Your task to perform on an android device: turn notification dots off Image 0: 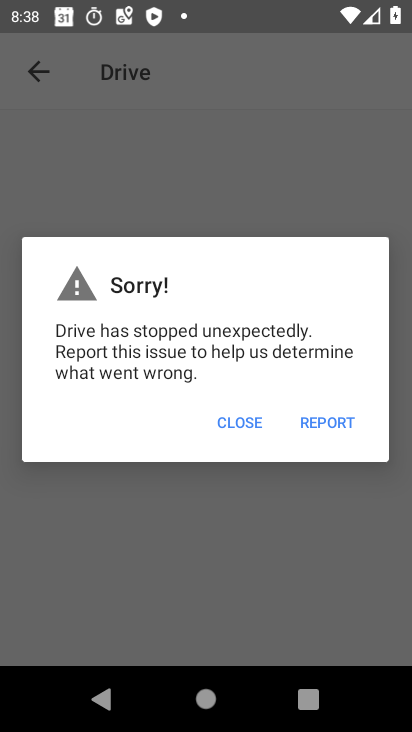
Step 0: press home button
Your task to perform on an android device: turn notification dots off Image 1: 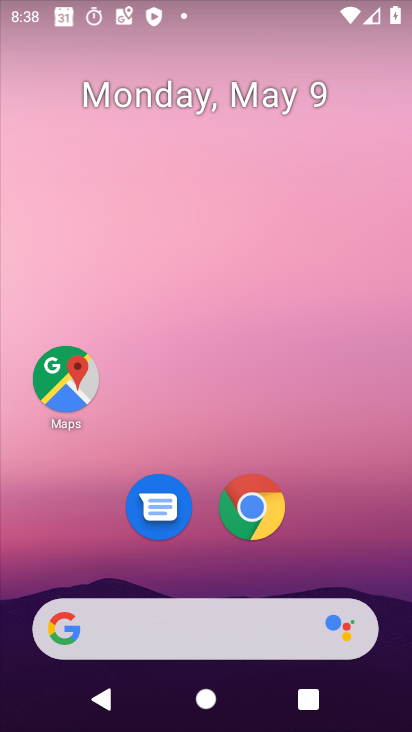
Step 1: drag from (277, 684) to (235, 126)
Your task to perform on an android device: turn notification dots off Image 2: 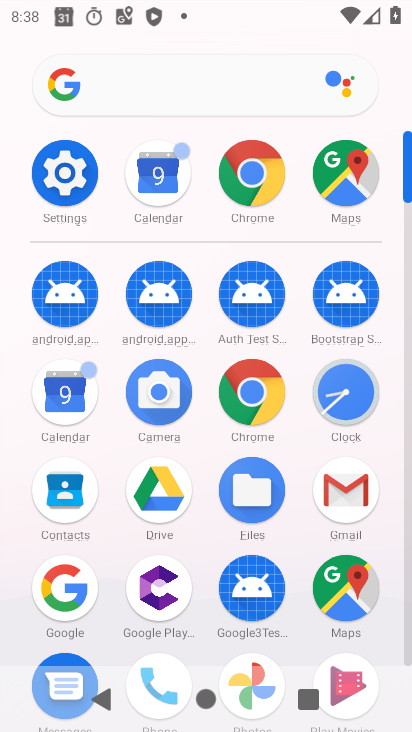
Step 2: click (72, 156)
Your task to perform on an android device: turn notification dots off Image 3: 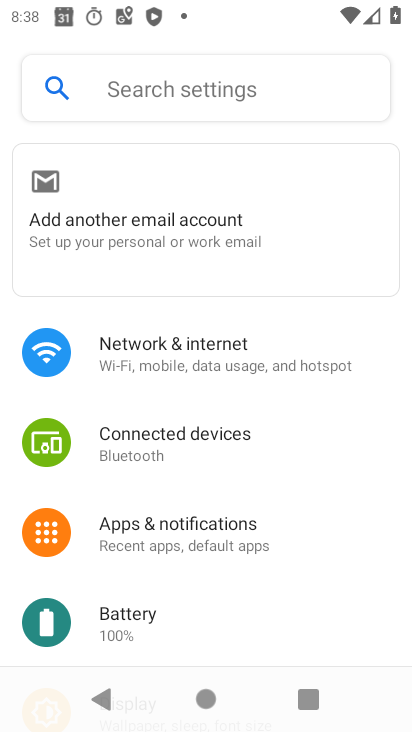
Step 3: click (142, 73)
Your task to perform on an android device: turn notification dots off Image 4: 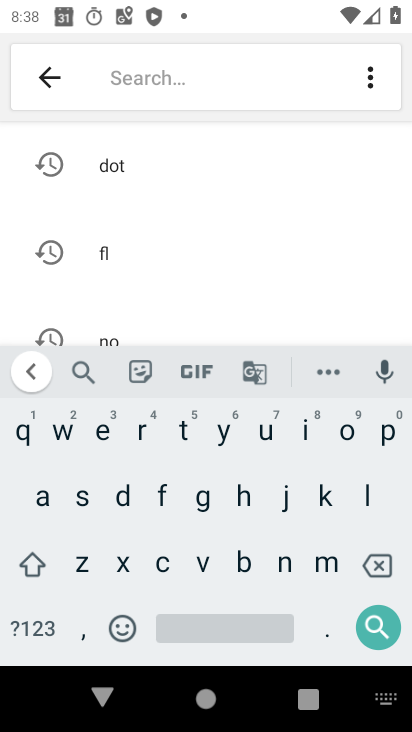
Step 4: click (118, 493)
Your task to perform on an android device: turn notification dots off Image 5: 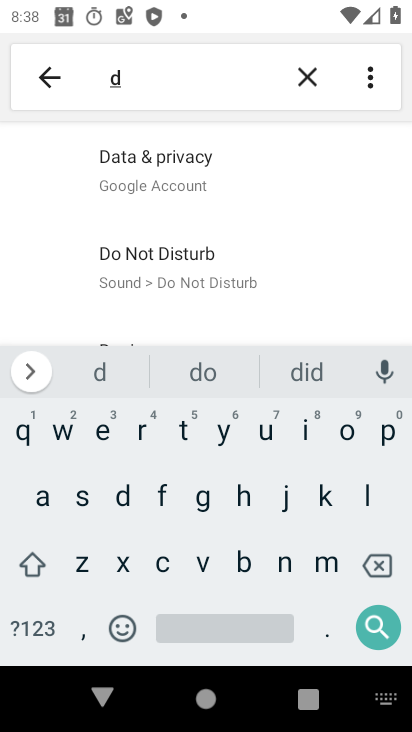
Step 5: click (342, 431)
Your task to perform on an android device: turn notification dots off Image 6: 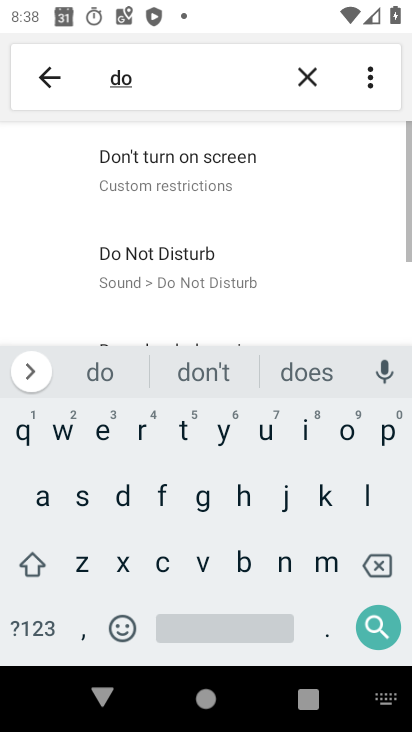
Step 6: click (176, 435)
Your task to perform on an android device: turn notification dots off Image 7: 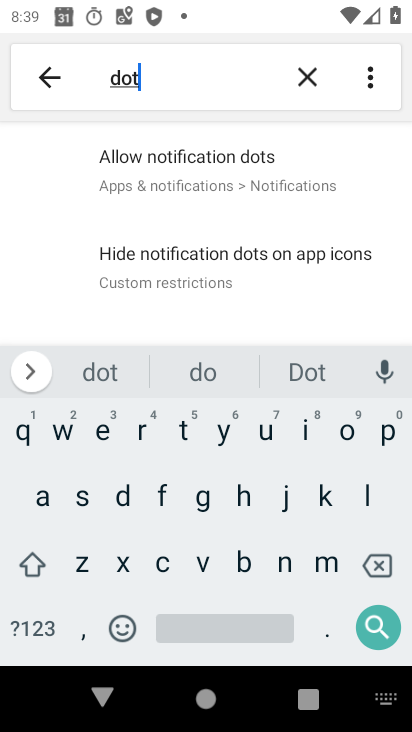
Step 7: click (186, 158)
Your task to perform on an android device: turn notification dots off Image 8: 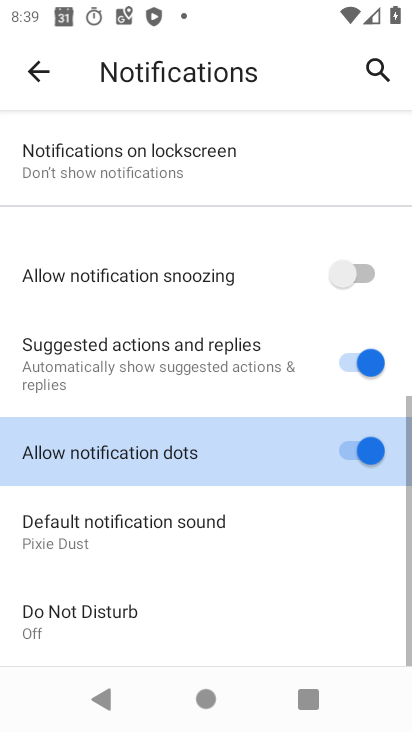
Step 8: click (338, 430)
Your task to perform on an android device: turn notification dots off Image 9: 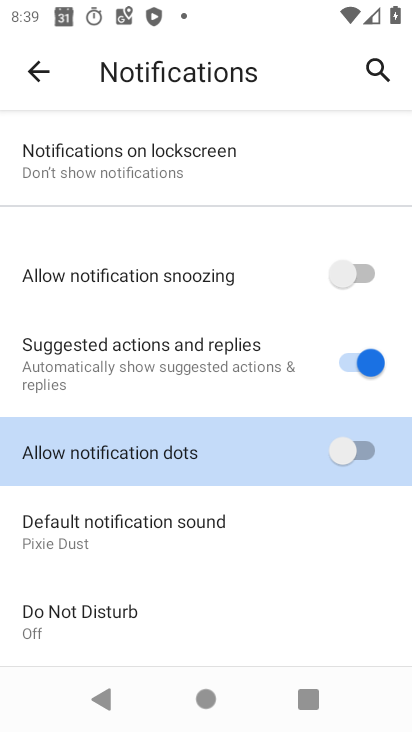
Step 9: task complete